Your task to perform on an android device: turn on improve location accuracy Image 0: 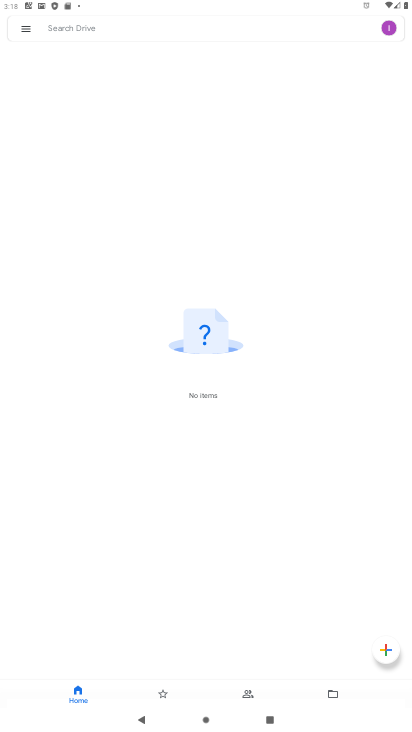
Step 0: press home button
Your task to perform on an android device: turn on improve location accuracy Image 1: 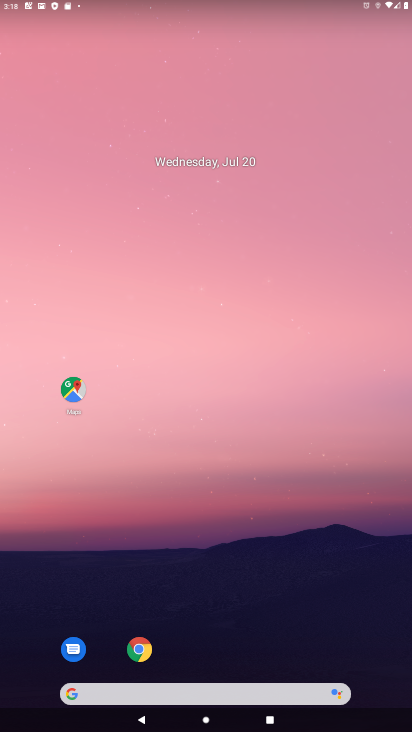
Step 1: drag from (177, 688) to (316, 48)
Your task to perform on an android device: turn on improve location accuracy Image 2: 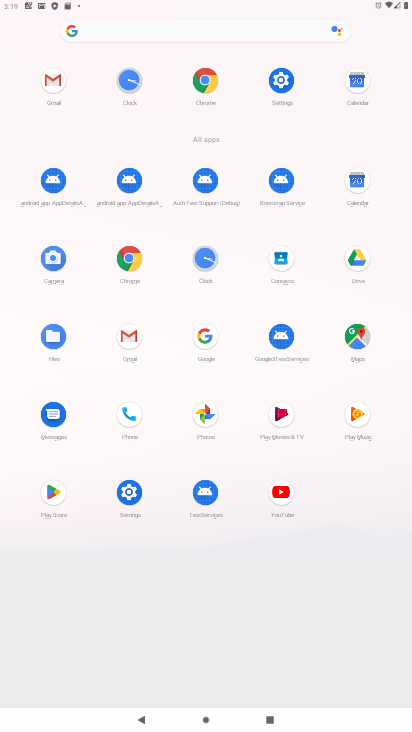
Step 2: click (281, 79)
Your task to perform on an android device: turn on improve location accuracy Image 3: 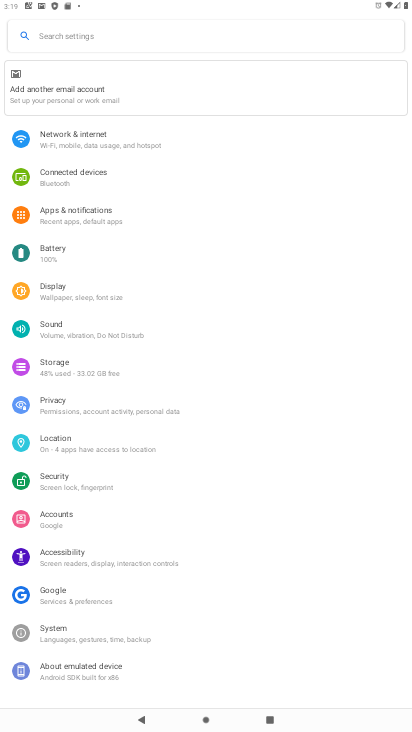
Step 3: click (58, 439)
Your task to perform on an android device: turn on improve location accuracy Image 4: 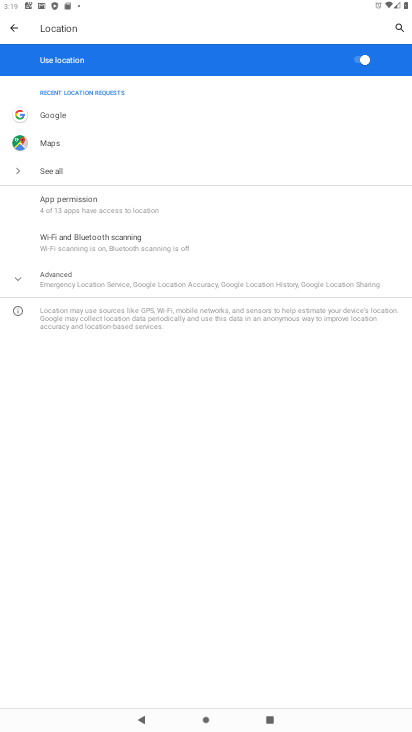
Step 4: click (135, 279)
Your task to perform on an android device: turn on improve location accuracy Image 5: 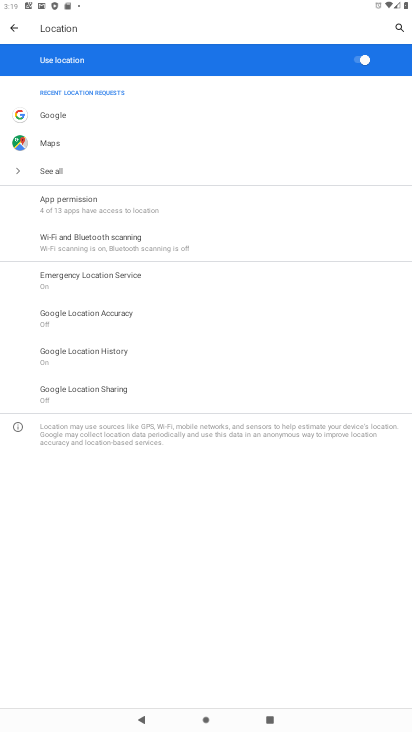
Step 5: click (127, 314)
Your task to perform on an android device: turn on improve location accuracy Image 6: 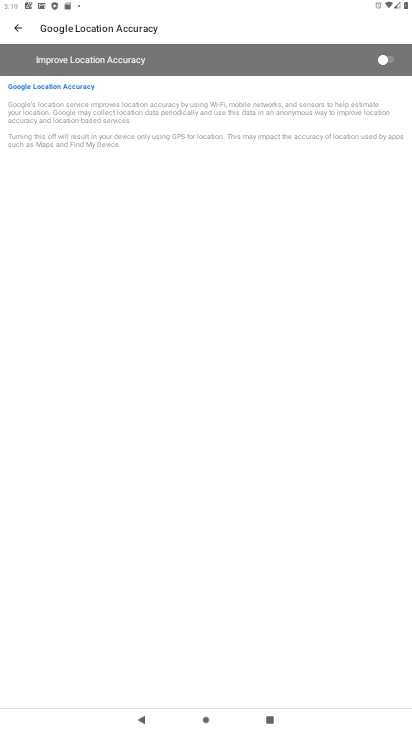
Step 6: click (388, 61)
Your task to perform on an android device: turn on improve location accuracy Image 7: 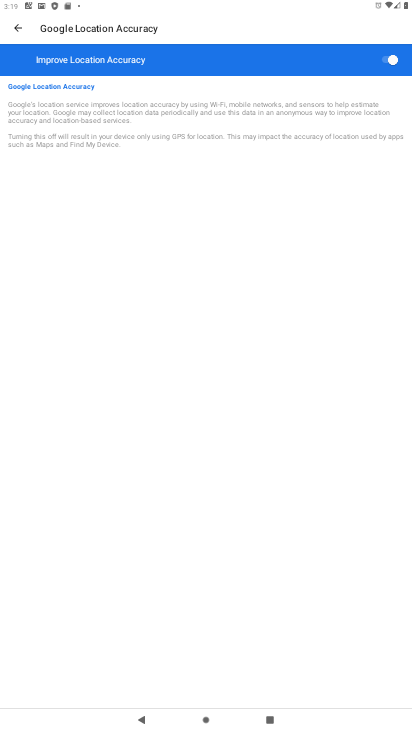
Step 7: task complete